Your task to perform on an android device: Go to Amazon Image 0: 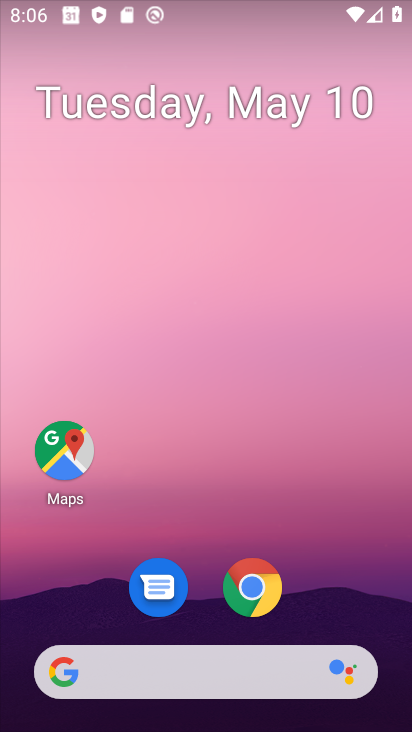
Step 0: drag from (349, 615) to (282, 109)
Your task to perform on an android device: Go to Amazon Image 1: 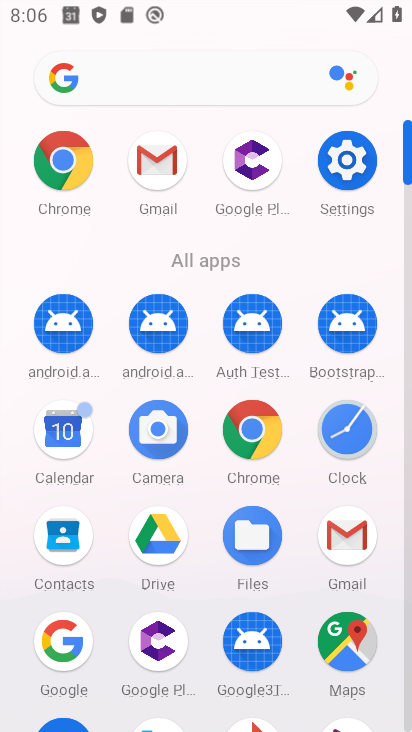
Step 1: click (38, 164)
Your task to perform on an android device: Go to Amazon Image 2: 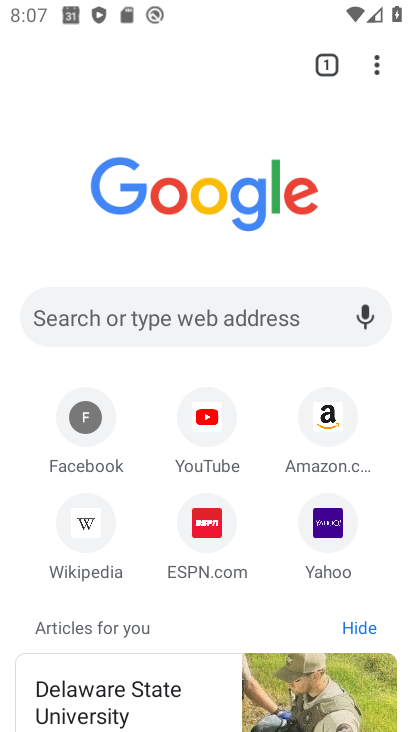
Step 2: click (319, 410)
Your task to perform on an android device: Go to Amazon Image 3: 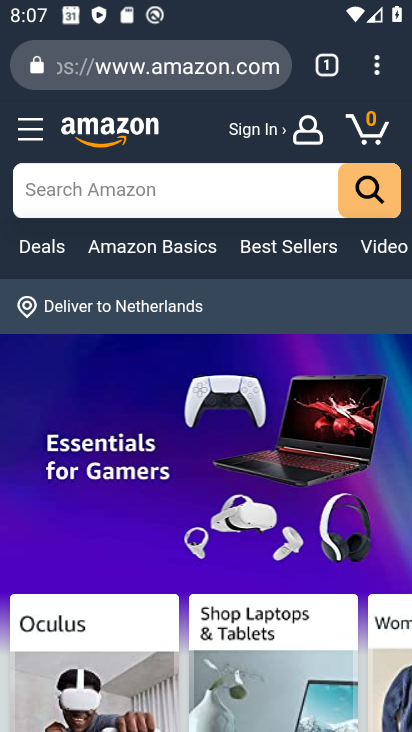
Step 3: task complete